Your task to perform on an android device: toggle location history Image 0: 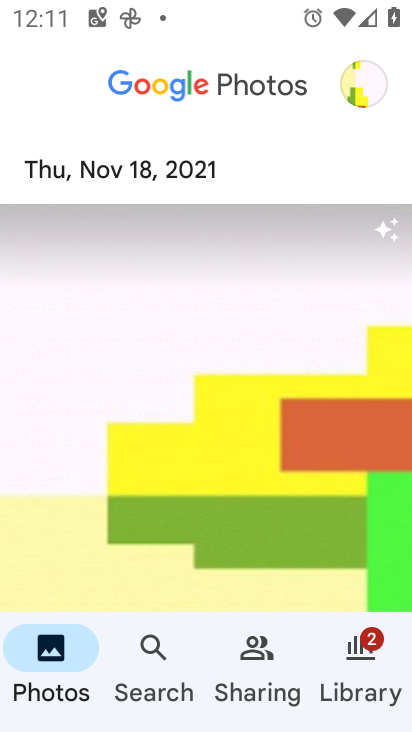
Step 0: press home button
Your task to perform on an android device: toggle location history Image 1: 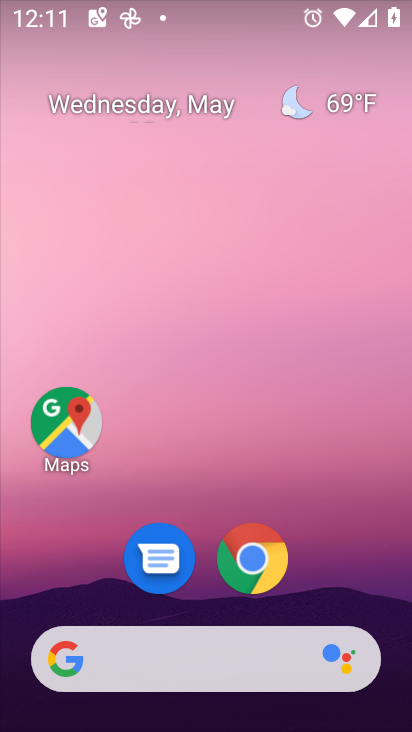
Step 1: drag from (392, 637) to (294, 3)
Your task to perform on an android device: toggle location history Image 2: 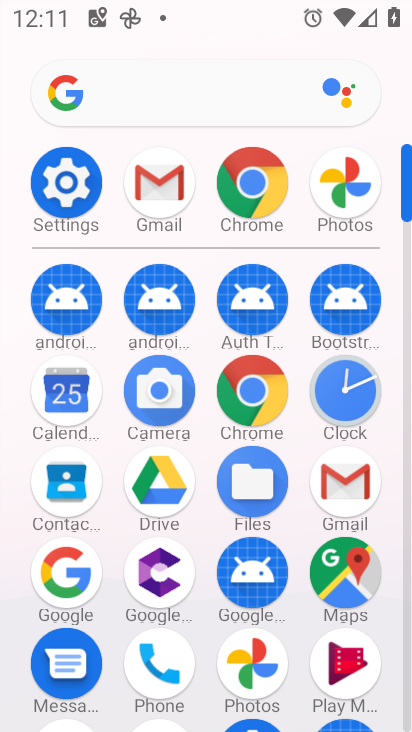
Step 2: click (70, 184)
Your task to perform on an android device: toggle location history Image 3: 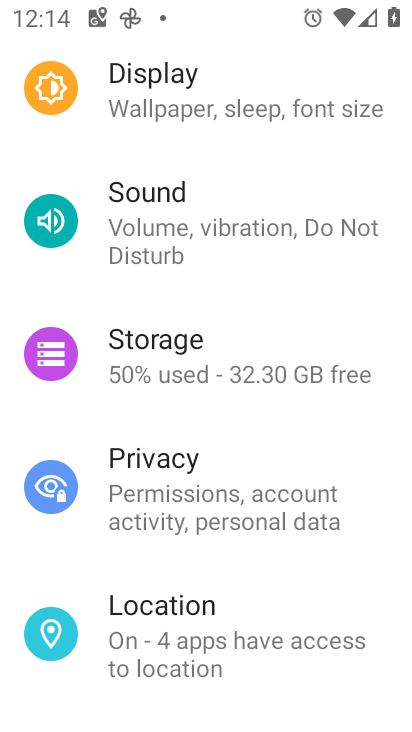
Step 3: click (190, 638)
Your task to perform on an android device: toggle location history Image 4: 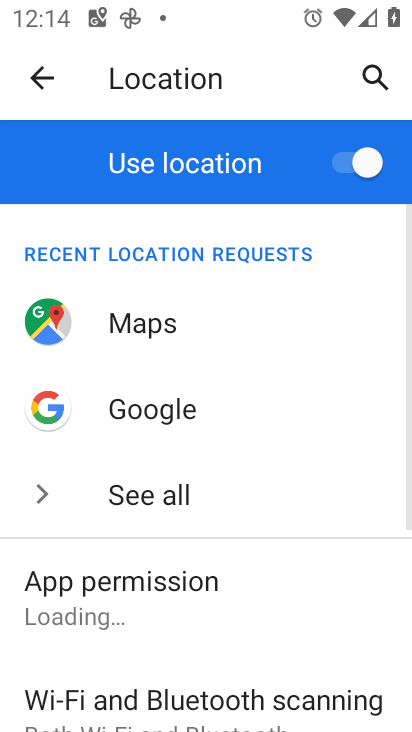
Step 4: drag from (156, 669) to (180, 186)
Your task to perform on an android device: toggle location history Image 5: 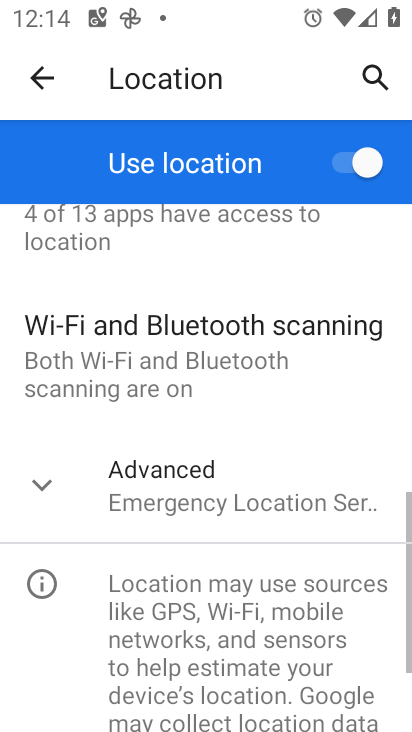
Step 5: click (200, 453)
Your task to perform on an android device: toggle location history Image 6: 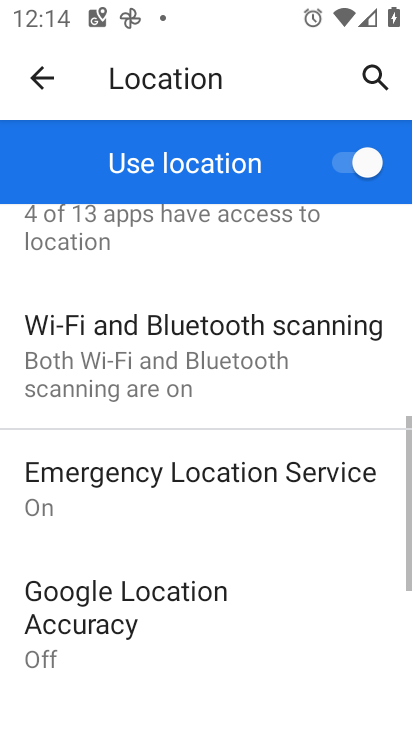
Step 6: drag from (240, 645) to (249, 279)
Your task to perform on an android device: toggle location history Image 7: 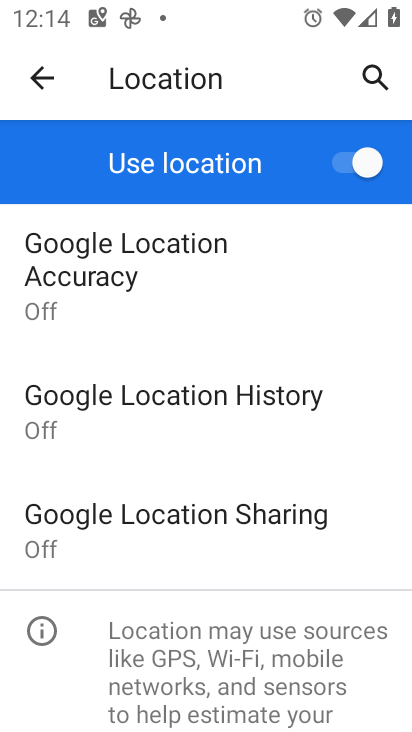
Step 7: click (246, 420)
Your task to perform on an android device: toggle location history Image 8: 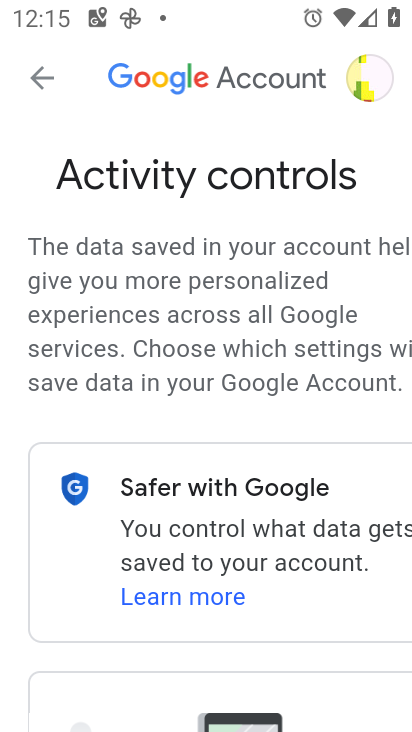
Step 8: drag from (286, 630) to (188, 183)
Your task to perform on an android device: toggle location history Image 9: 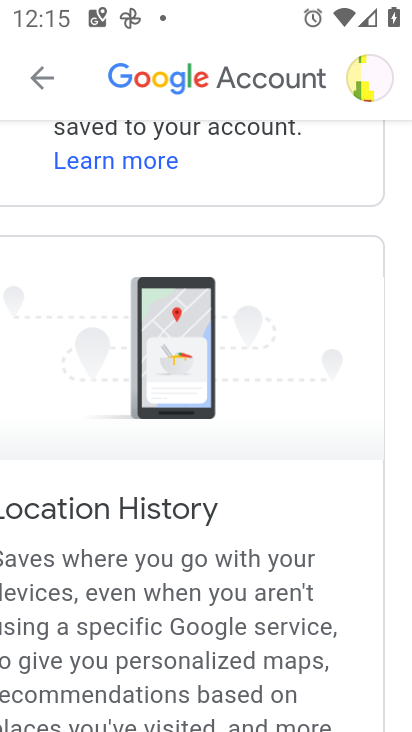
Step 9: drag from (306, 656) to (271, 126)
Your task to perform on an android device: toggle location history Image 10: 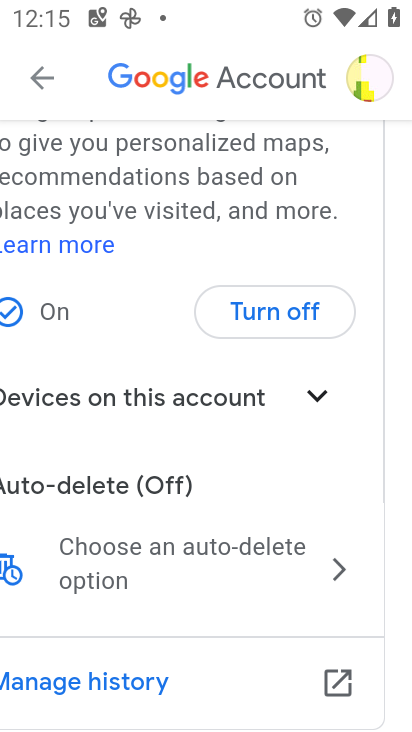
Step 10: click (297, 305)
Your task to perform on an android device: toggle location history Image 11: 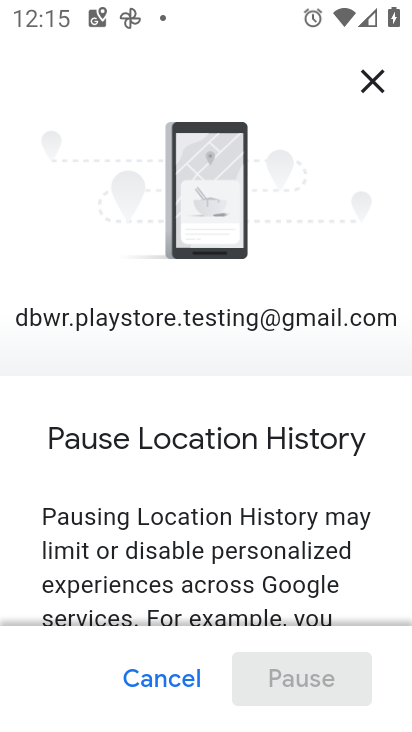
Step 11: task complete